Your task to perform on an android device: Open Chrome and go to settings Image 0: 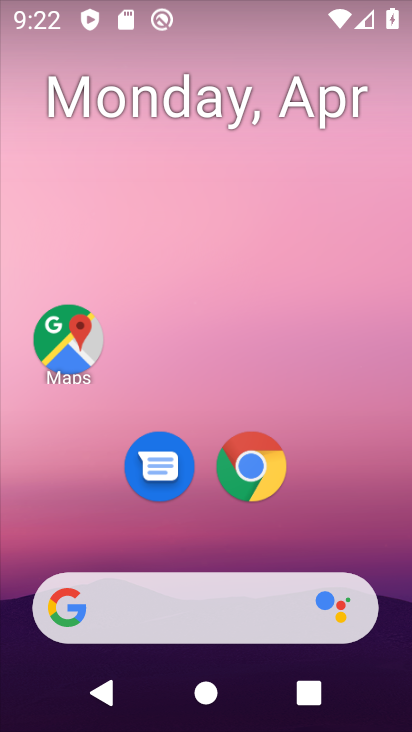
Step 0: click (255, 508)
Your task to perform on an android device: Open Chrome and go to settings Image 1: 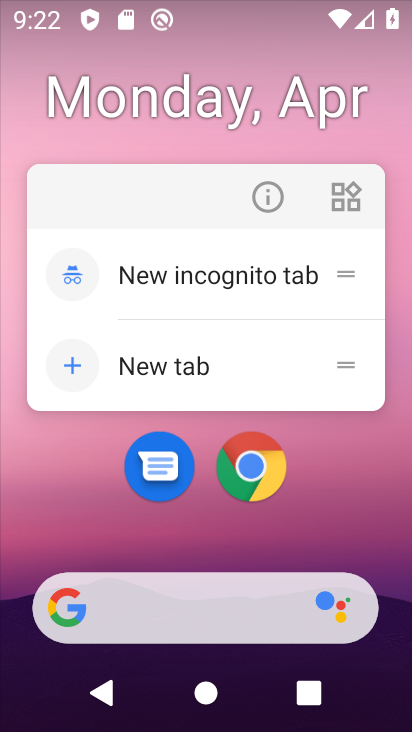
Step 1: click (255, 508)
Your task to perform on an android device: Open Chrome and go to settings Image 2: 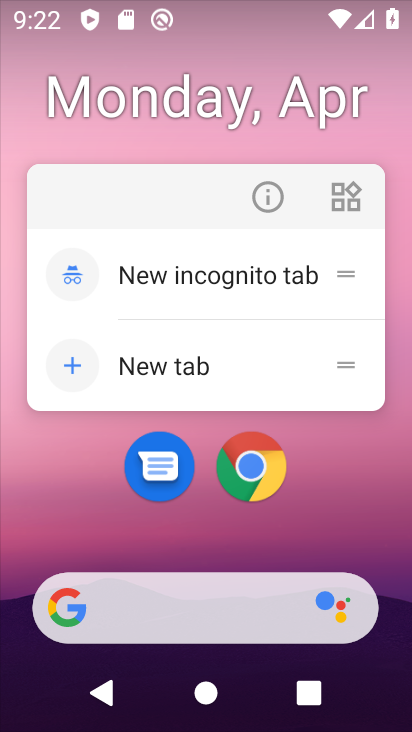
Step 2: click (244, 465)
Your task to perform on an android device: Open Chrome and go to settings Image 3: 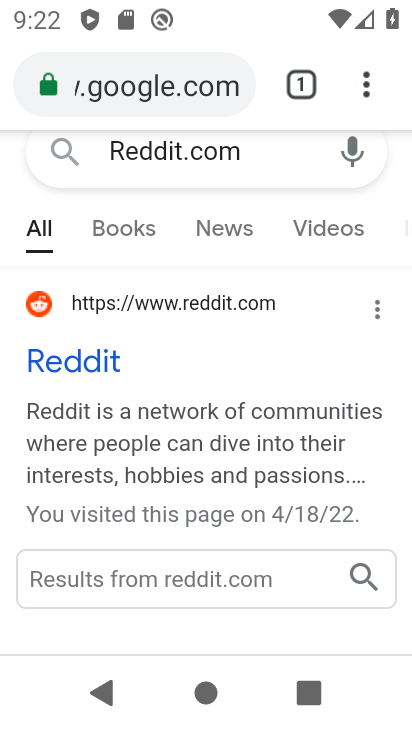
Step 3: click (376, 92)
Your task to perform on an android device: Open Chrome and go to settings Image 4: 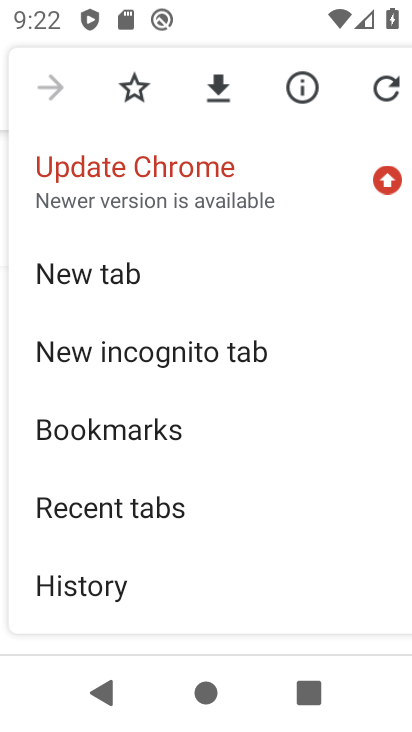
Step 4: drag from (221, 447) to (231, 290)
Your task to perform on an android device: Open Chrome and go to settings Image 5: 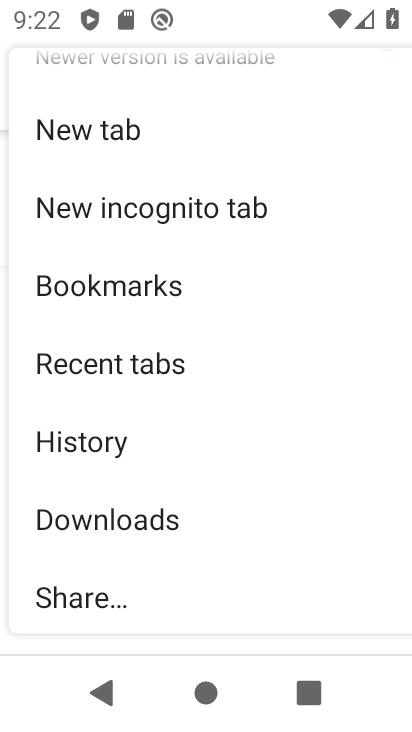
Step 5: drag from (230, 416) to (228, 322)
Your task to perform on an android device: Open Chrome and go to settings Image 6: 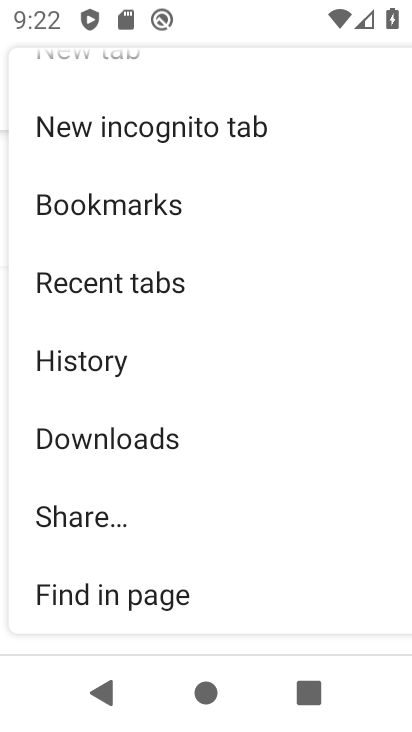
Step 6: drag from (217, 435) to (222, 355)
Your task to perform on an android device: Open Chrome and go to settings Image 7: 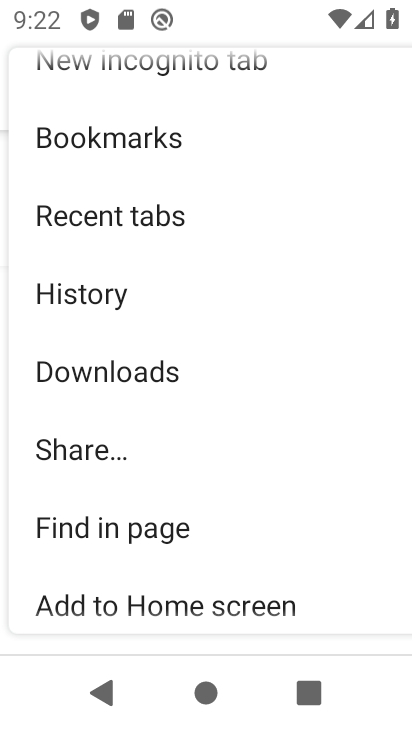
Step 7: drag from (190, 462) to (217, 386)
Your task to perform on an android device: Open Chrome and go to settings Image 8: 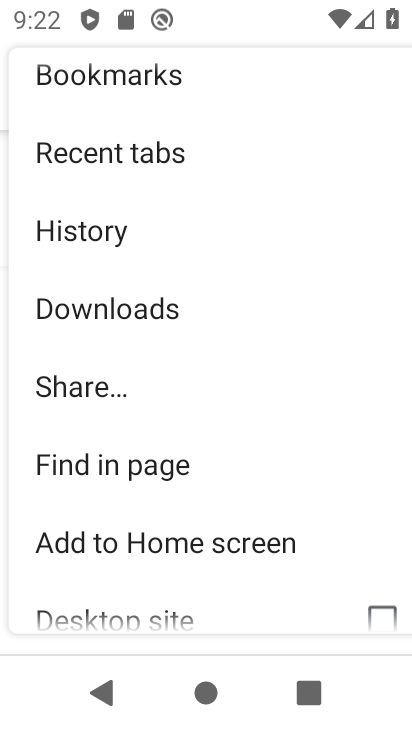
Step 8: drag from (213, 501) to (235, 428)
Your task to perform on an android device: Open Chrome and go to settings Image 9: 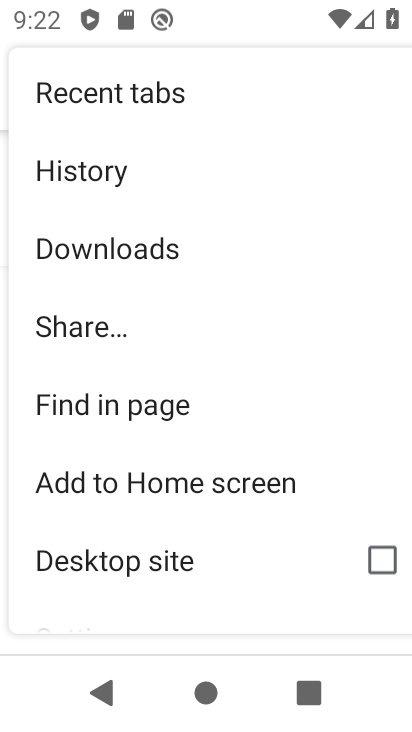
Step 9: drag from (211, 517) to (244, 427)
Your task to perform on an android device: Open Chrome and go to settings Image 10: 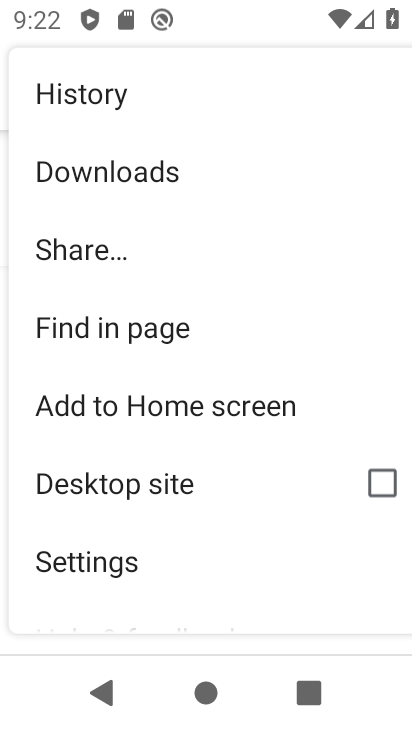
Step 10: drag from (203, 540) to (229, 453)
Your task to perform on an android device: Open Chrome and go to settings Image 11: 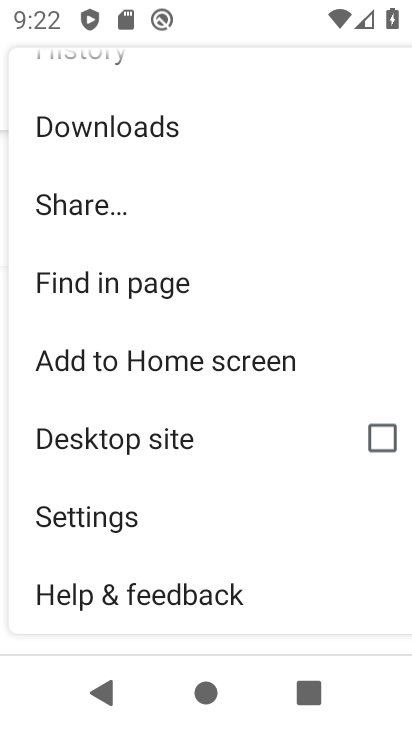
Step 11: click (117, 512)
Your task to perform on an android device: Open Chrome and go to settings Image 12: 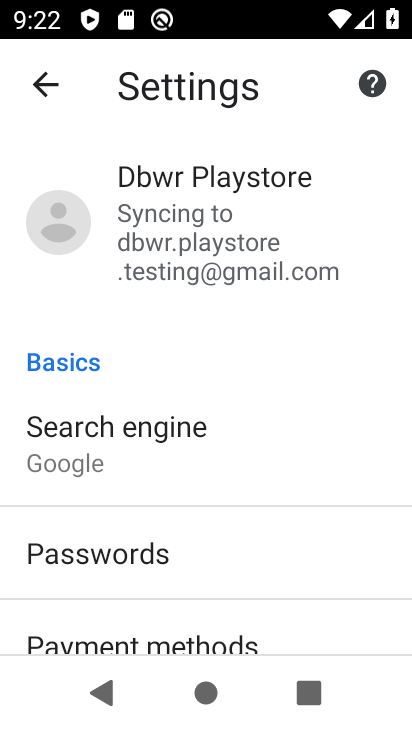
Step 12: task complete